Your task to perform on an android device: Go to network settings Image 0: 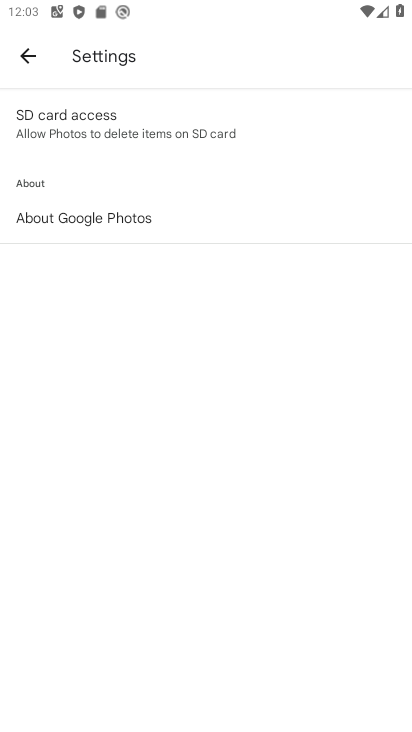
Step 0: press home button
Your task to perform on an android device: Go to network settings Image 1: 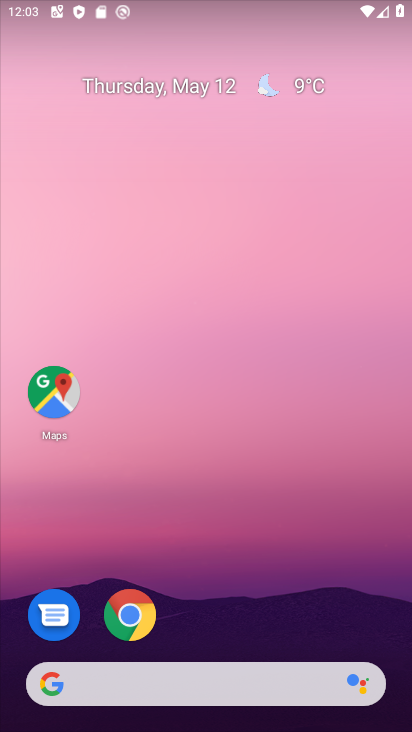
Step 1: drag from (296, 570) to (239, 60)
Your task to perform on an android device: Go to network settings Image 2: 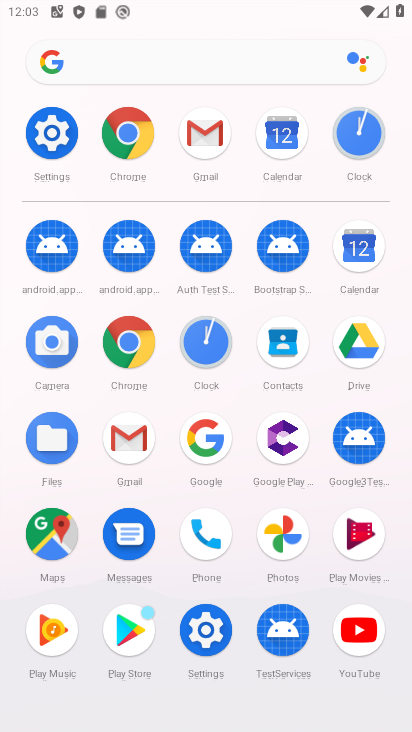
Step 2: click (49, 119)
Your task to perform on an android device: Go to network settings Image 3: 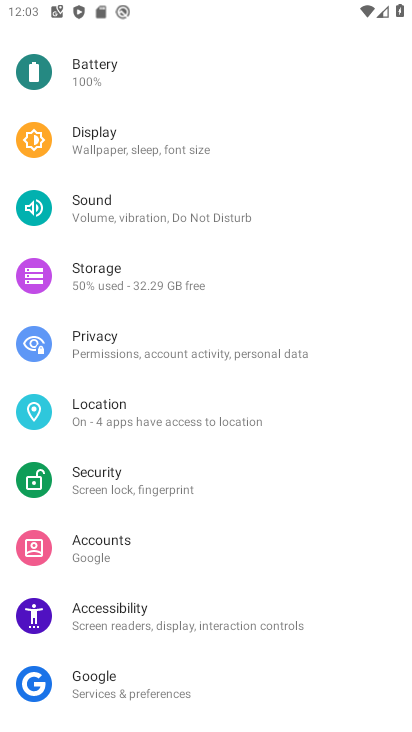
Step 3: drag from (180, 525) to (199, 693)
Your task to perform on an android device: Go to network settings Image 4: 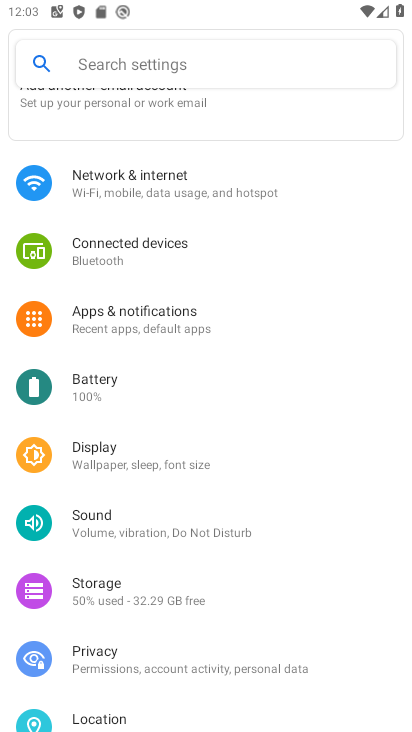
Step 4: click (172, 570)
Your task to perform on an android device: Go to network settings Image 5: 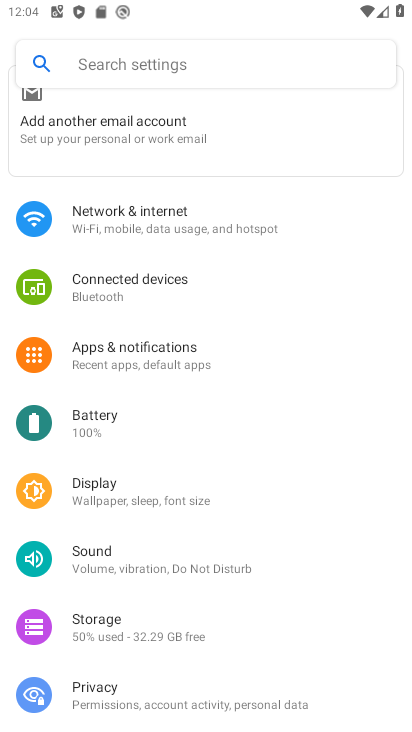
Step 5: click (139, 235)
Your task to perform on an android device: Go to network settings Image 6: 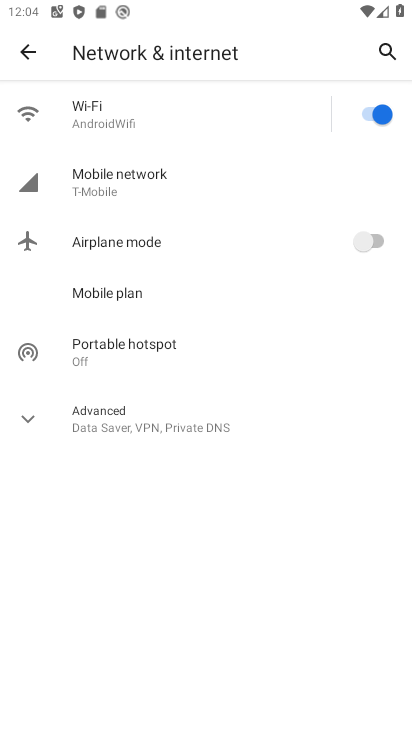
Step 6: task complete